Your task to perform on an android device: turn off priority inbox in the gmail app Image 0: 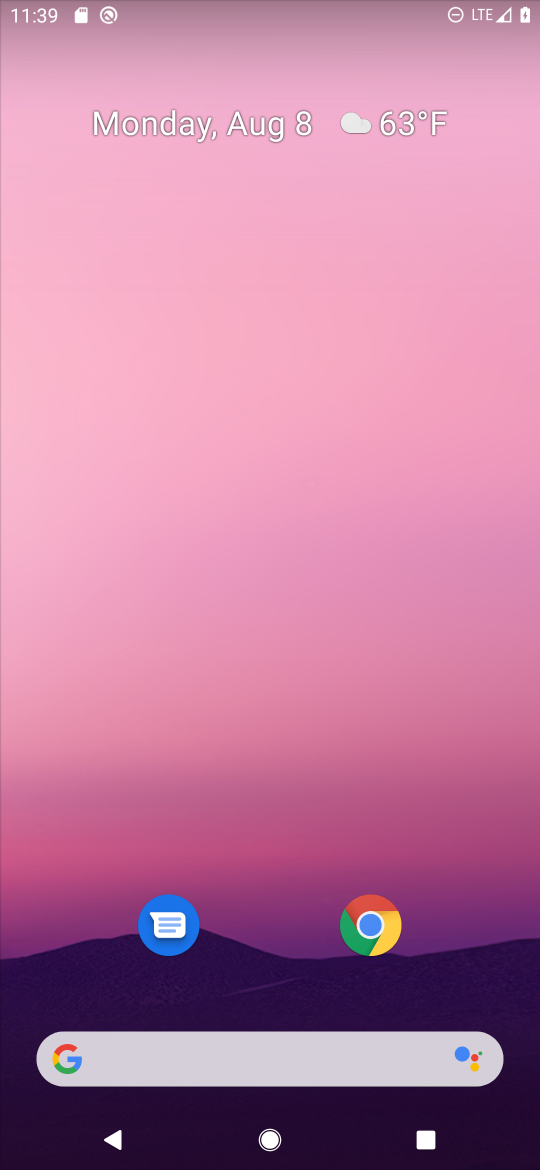
Step 0: drag from (262, 855) to (277, 327)
Your task to perform on an android device: turn off priority inbox in the gmail app Image 1: 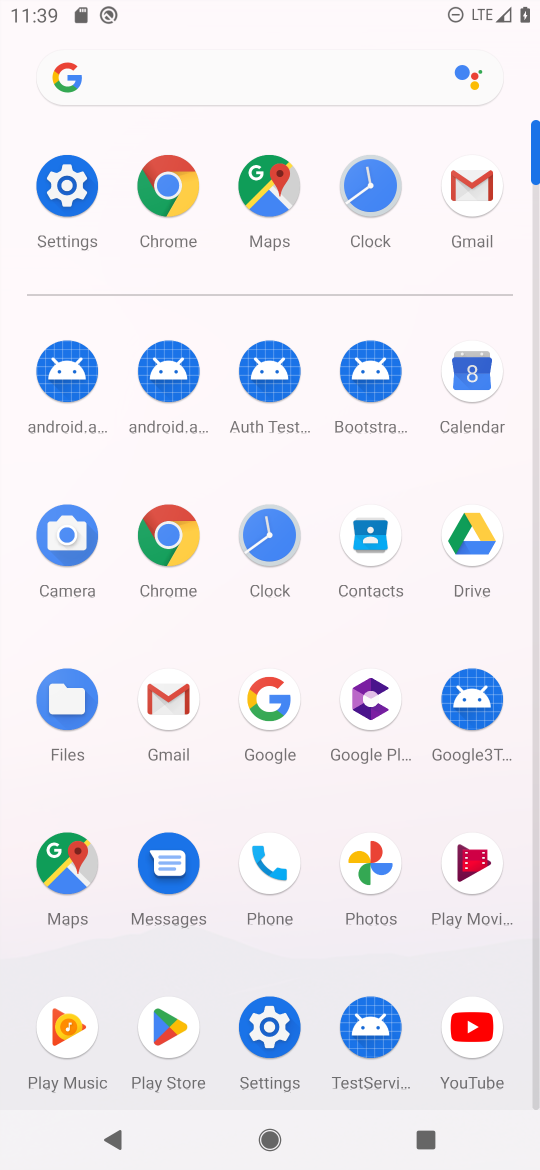
Step 1: click (178, 692)
Your task to perform on an android device: turn off priority inbox in the gmail app Image 2: 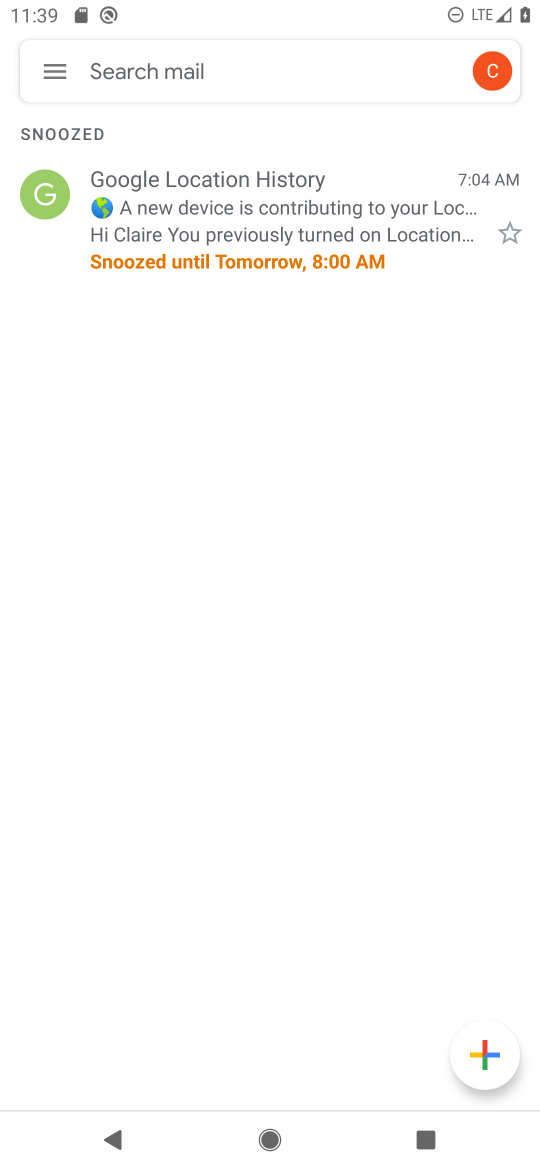
Step 2: click (48, 62)
Your task to perform on an android device: turn off priority inbox in the gmail app Image 3: 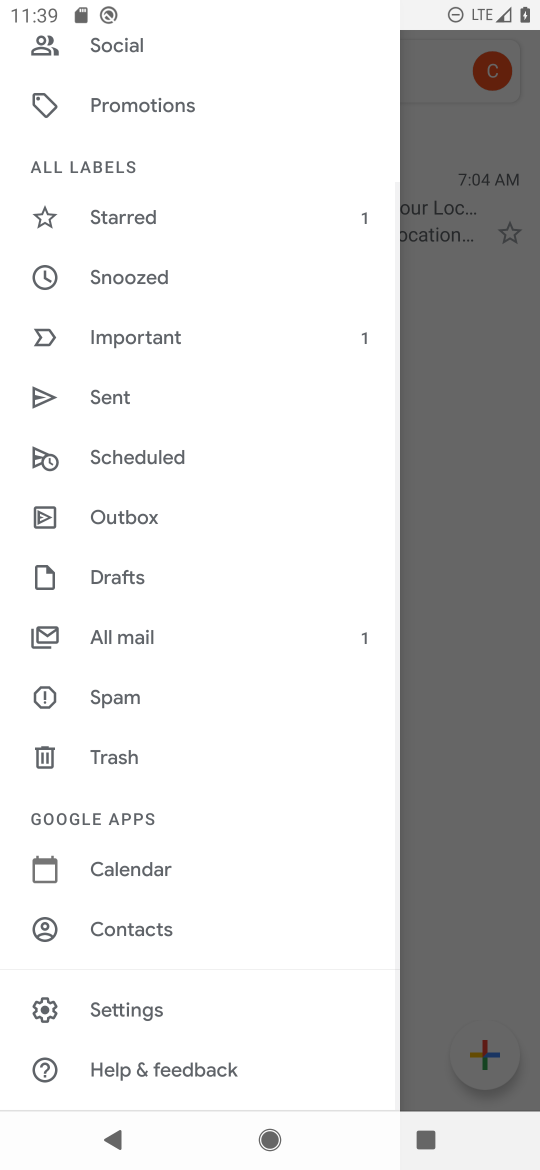
Step 3: click (145, 996)
Your task to perform on an android device: turn off priority inbox in the gmail app Image 4: 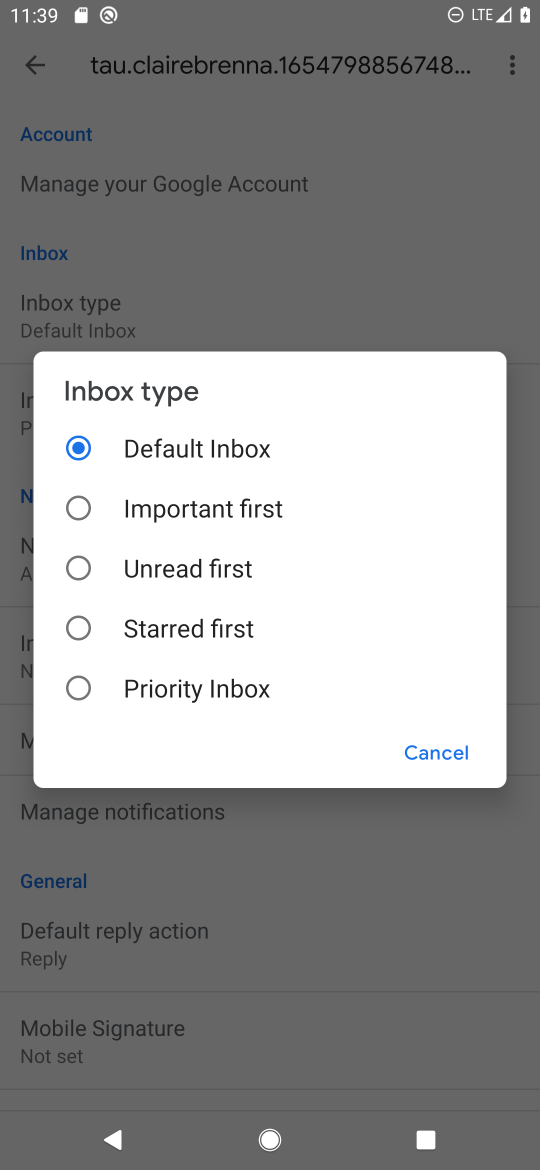
Step 4: task complete